Your task to perform on an android device: set the timer Image 0: 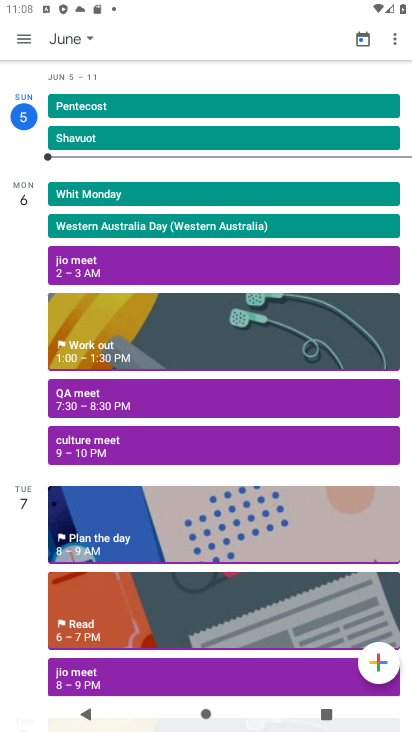
Step 0: task complete